Your task to perform on an android device: Go to network settings Image 0: 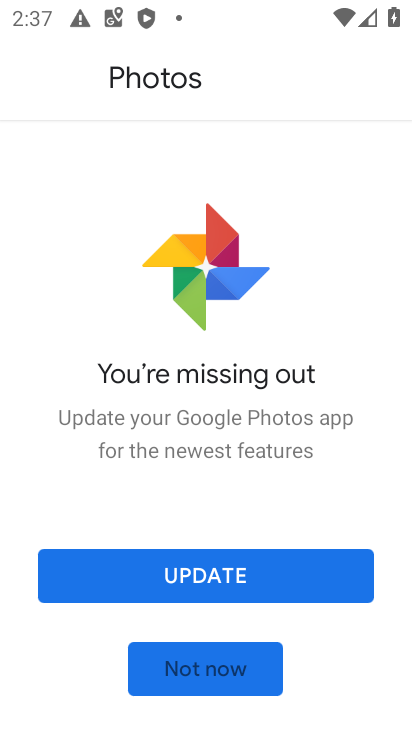
Step 0: press home button
Your task to perform on an android device: Go to network settings Image 1: 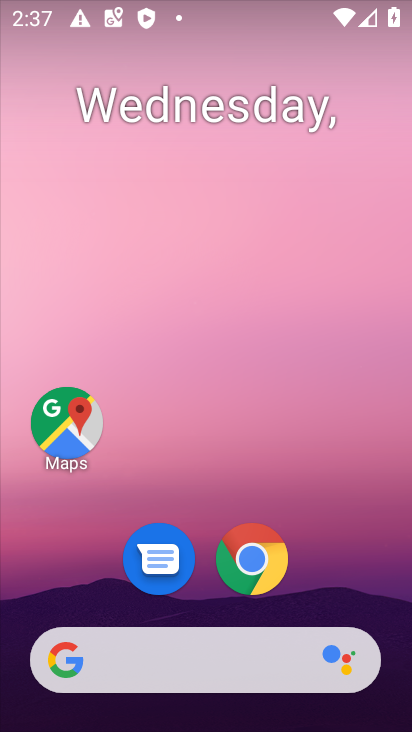
Step 1: drag from (210, 590) to (286, 4)
Your task to perform on an android device: Go to network settings Image 2: 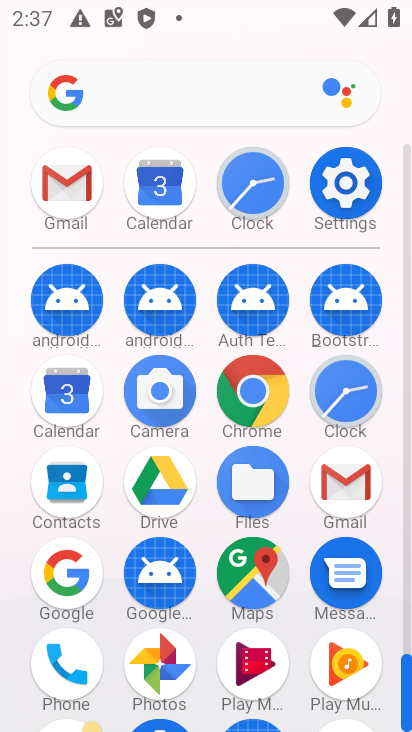
Step 2: click (355, 184)
Your task to perform on an android device: Go to network settings Image 3: 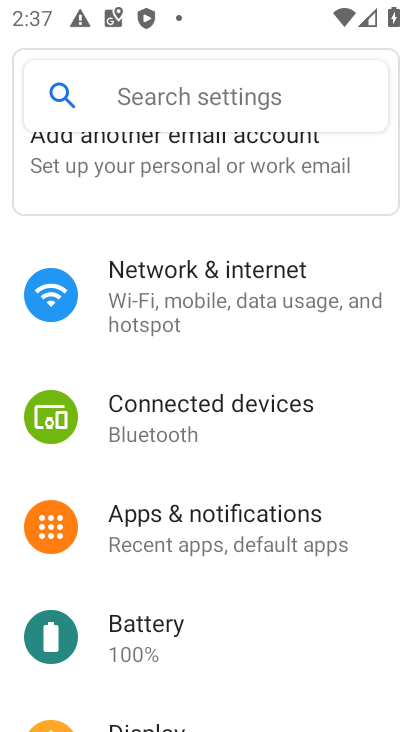
Step 3: click (183, 294)
Your task to perform on an android device: Go to network settings Image 4: 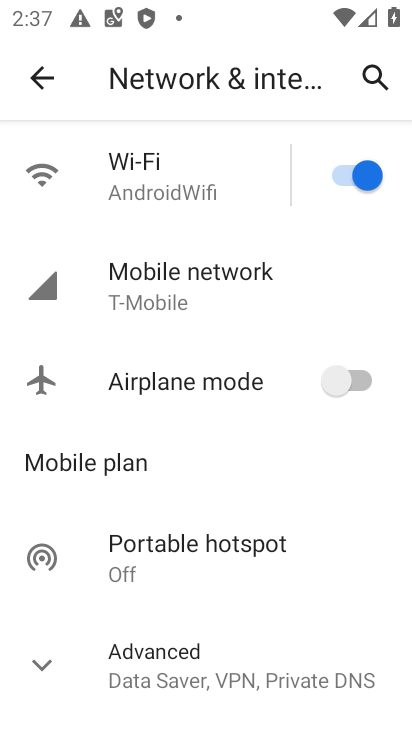
Step 4: click (152, 272)
Your task to perform on an android device: Go to network settings Image 5: 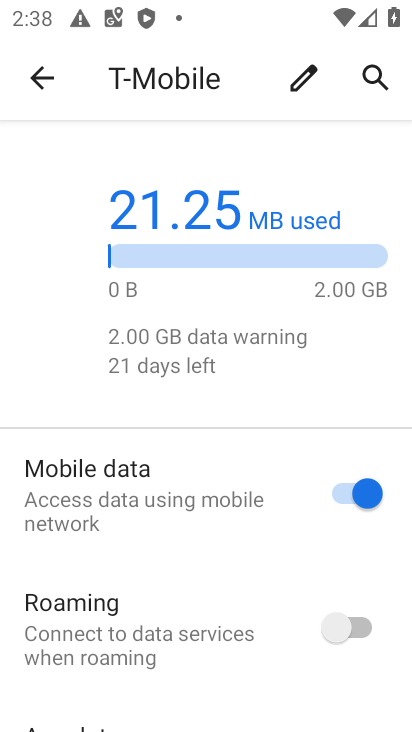
Step 5: task complete